Your task to perform on an android device: turn vacation reply on in the gmail app Image 0: 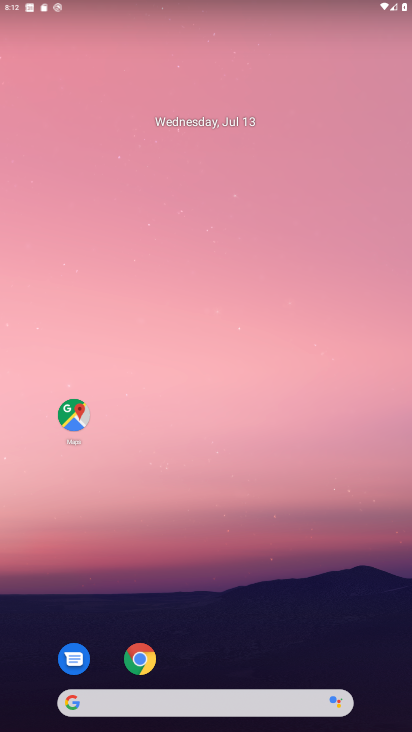
Step 0: drag from (238, 560) to (183, 238)
Your task to perform on an android device: turn vacation reply on in the gmail app Image 1: 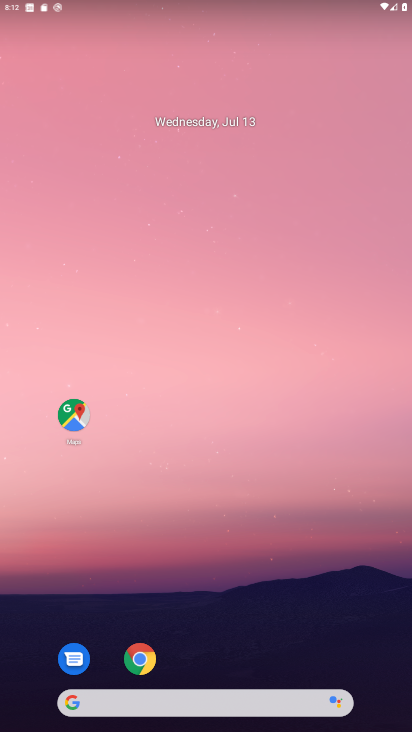
Step 1: drag from (213, 584) to (231, 17)
Your task to perform on an android device: turn vacation reply on in the gmail app Image 2: 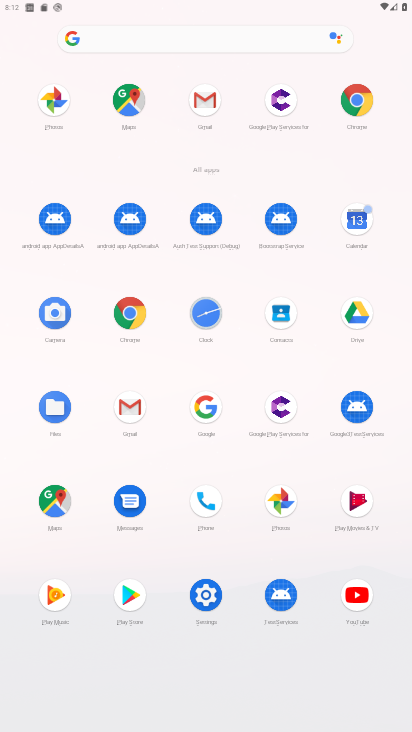
Step 2: click (203, 99)
Your task to perform on an android device: turn vacation reply on in the gmail app Image 3: 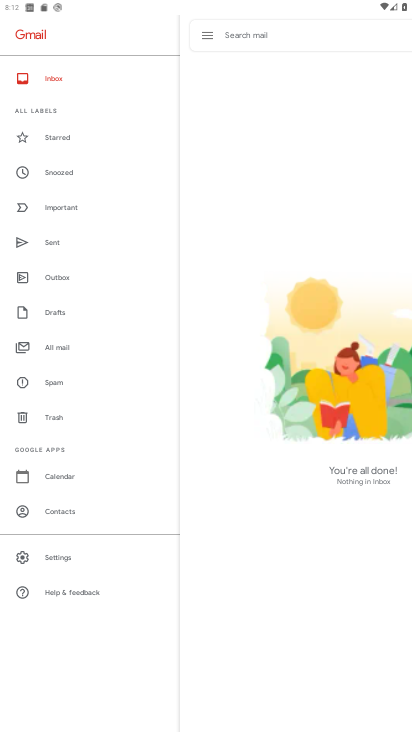
Step 3: click (65, 566)
Your task to perform on an android device: turn vacation reply on in the gmail app Image 4: 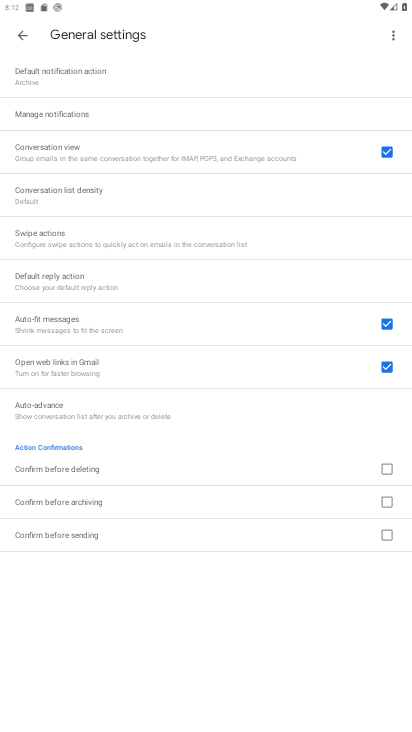
Step 4: click (21, 28)
Your task to perform on an android device: turn vacation reply on in the gmail app Image 5: 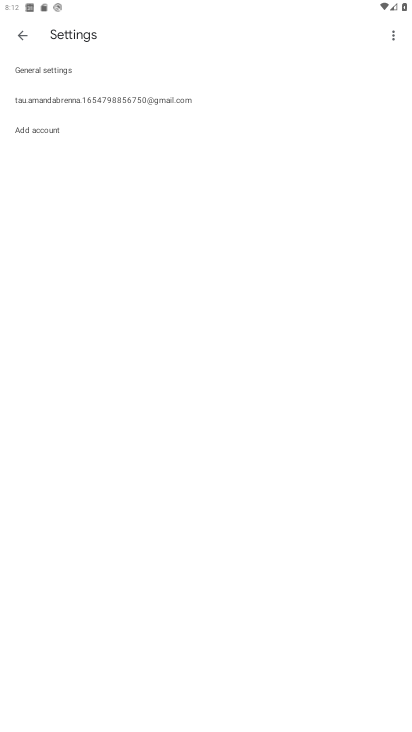
Step 5: click (60, 99)
Your task to perform on an android device: turn vacation reply on in the gmail app Image 6: 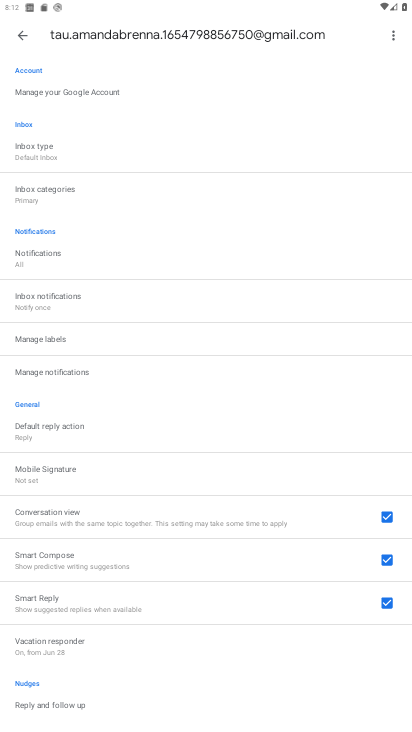
Step 6: click (54, 639)
Your task to perform on an android device: turn vacation reply on in the gmail app Image 7: 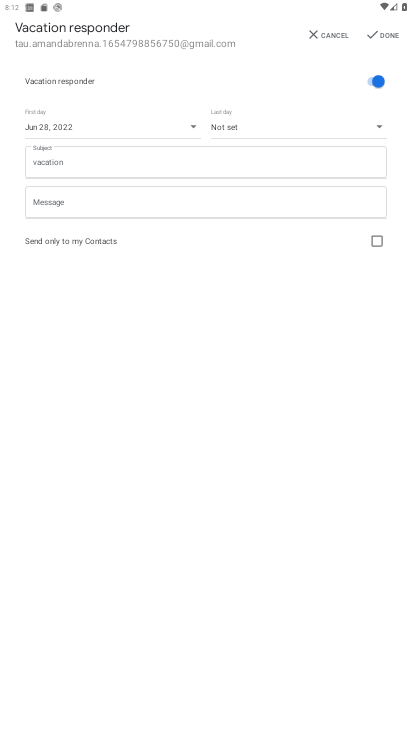
Step 7: task complete